Your task to perform on an android device: Toggle the flashlight Image 0: 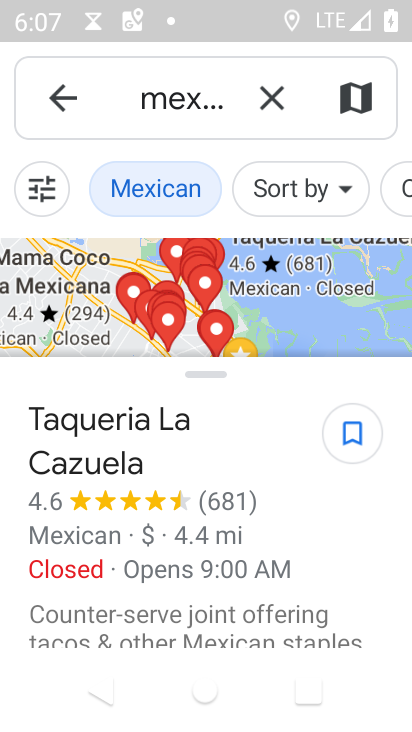
Step 0: press home button
Your task to perform on an android device: Toggle the flashlight Image 1: 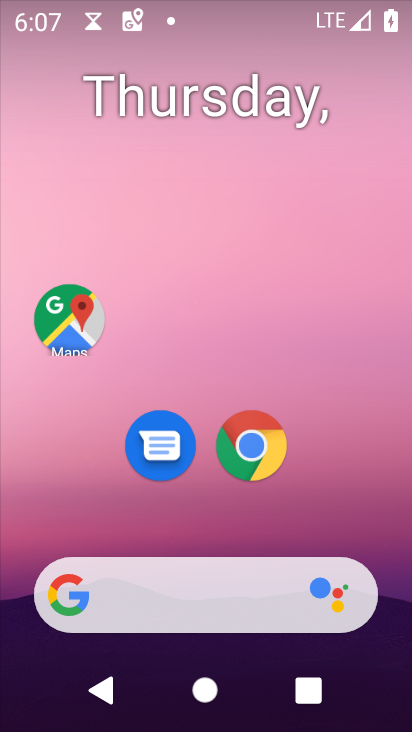
Step 1: task complete